Your task to perform on an android device: Open Yahoo.com Image 0: 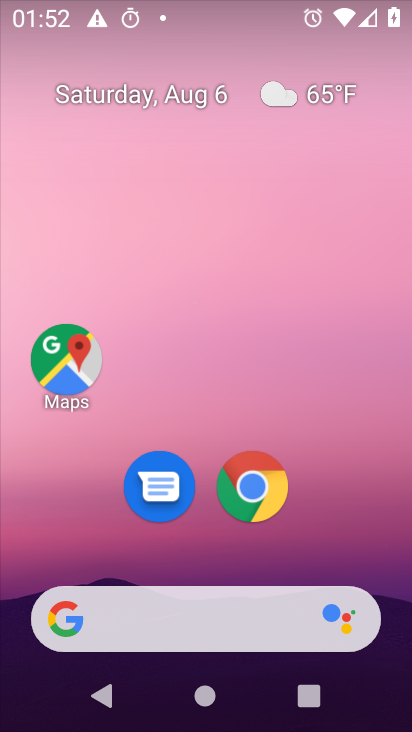
Step 0: click (263, 488)
Your task to perform on an android device: Open Yahoo.com Image 1: 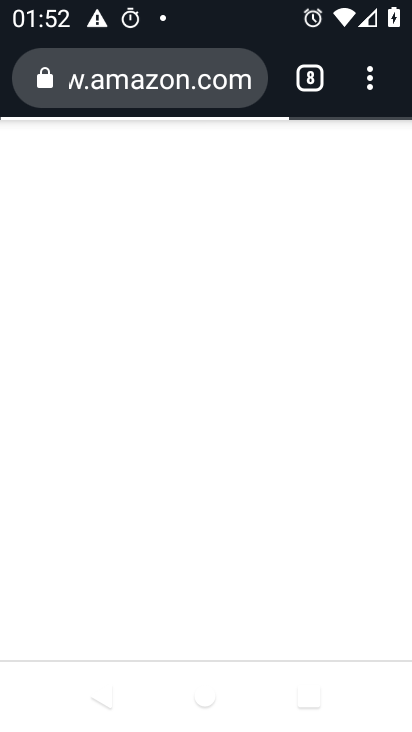
Step 1: click (315, 82)
Your task to perform on an android device: Open Yahoo.com Image 2: 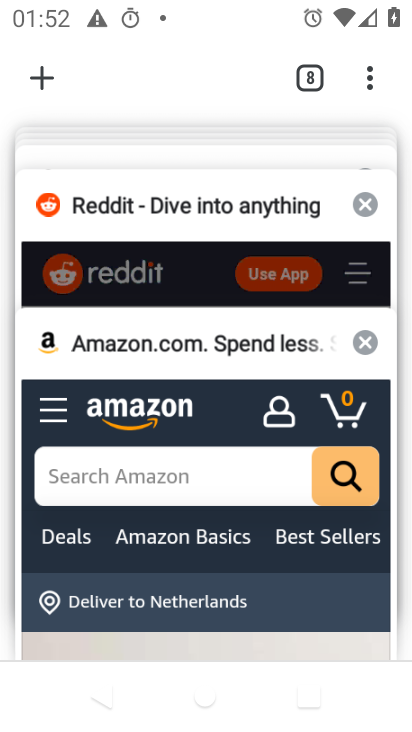
Step 2: drag from (136, 193) to (165, 641)
Your task to perform on an android device: Open Yahoo.com Image 3: 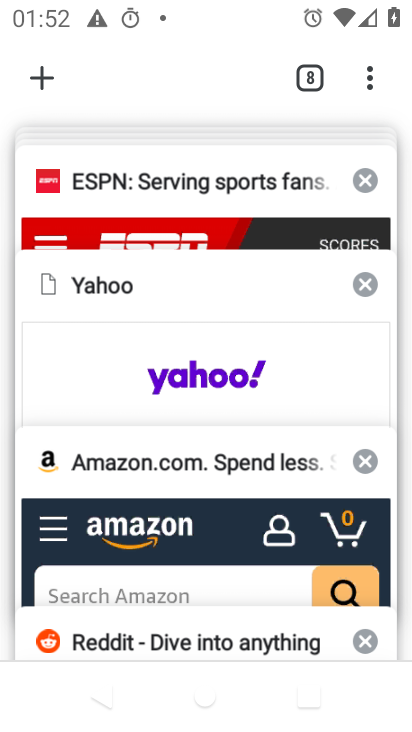
Step 3: click (120, 286)
Your task to perform on an android device: Open Yahoo.com Image 4: 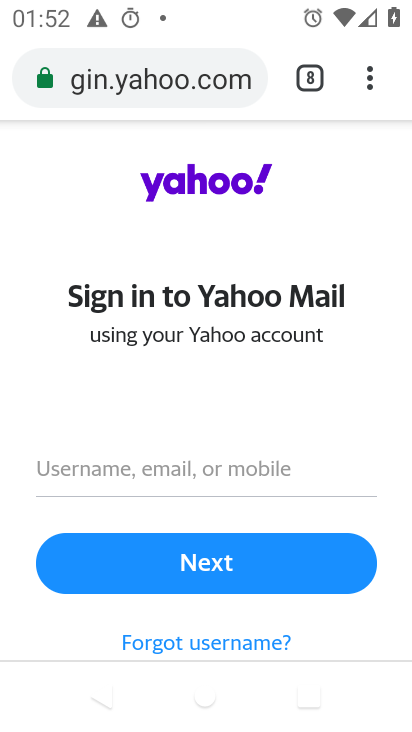
Step 4: task complete